Your task to perform on an android device: choose inbox layout in the gmail app Image 0: 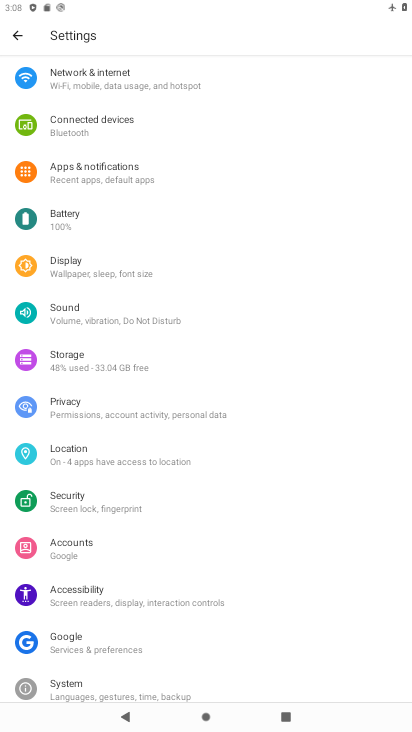
Step 0: press home button
Your task to perform on an android device: choose inbox layout in the gmail app Image 1: 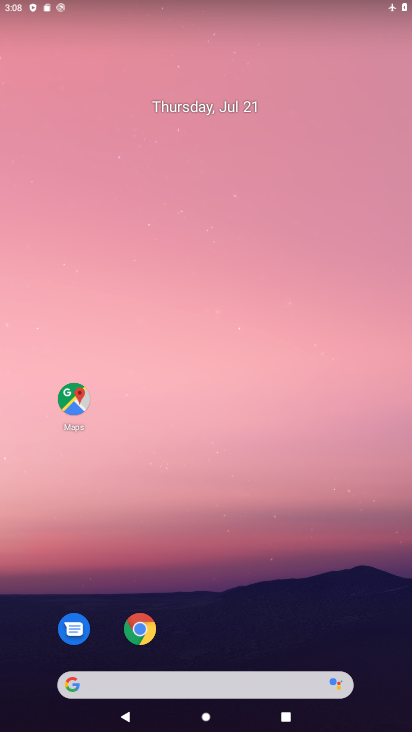
Step 1: drag from (299, 562) to (297, 103)
Your task to perform on an android device: choose inbox layout in the gmail app Image 2: 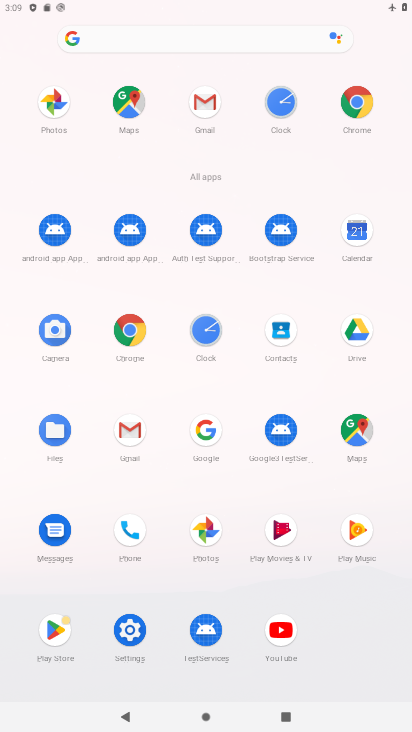
Step 2: click (133, 426)
Your task to perform on an android device: choose inbox layout in the gmail app Image 3: 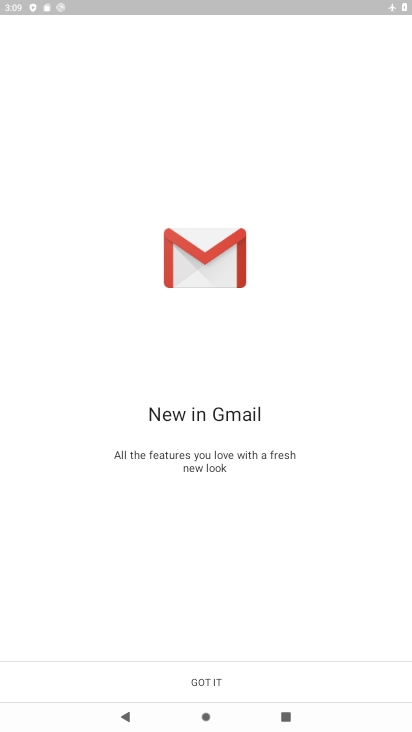
Step 3: click (227, 677)
Your task to perform on an android device: choose inbox layout in the gmail app Image 4: 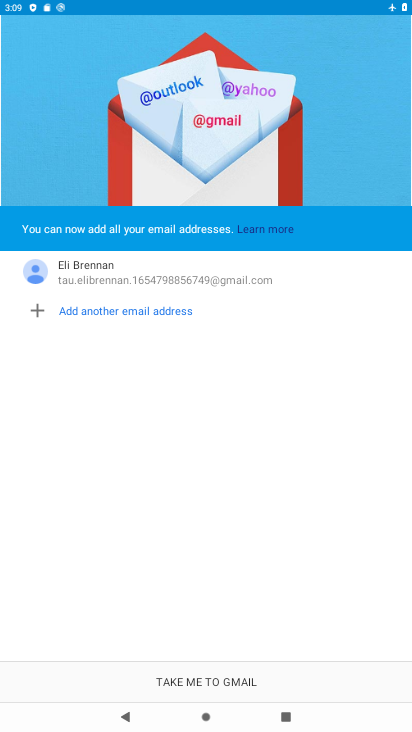
Step 4: click (217, 667)
Your task to perform on an android device: choose inbox layout in the gmail app Image 5: 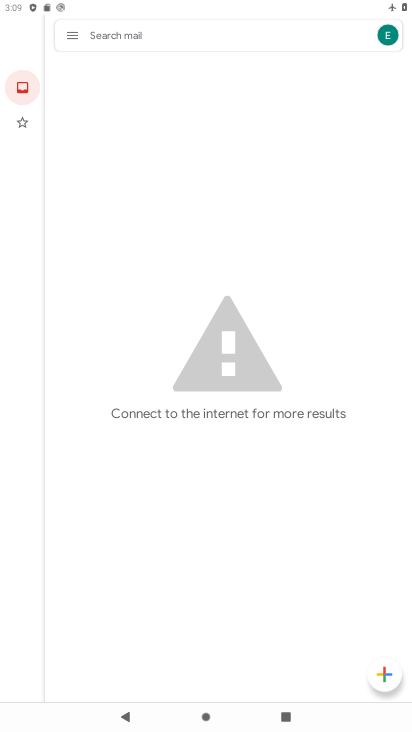
Step 5: click (68, 35)
Your task to perform on an android device: choose inbox layout in the gmail app Image 6: 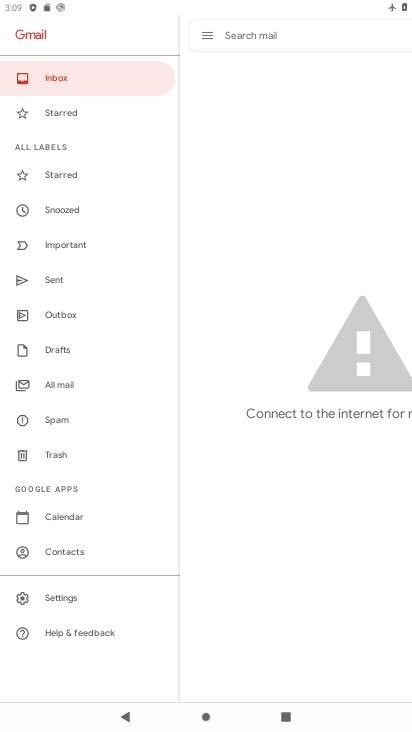
Step 6: click (68, 593)
Your task to perform on an android device: choose inbox layout in the gmail app Image 7: 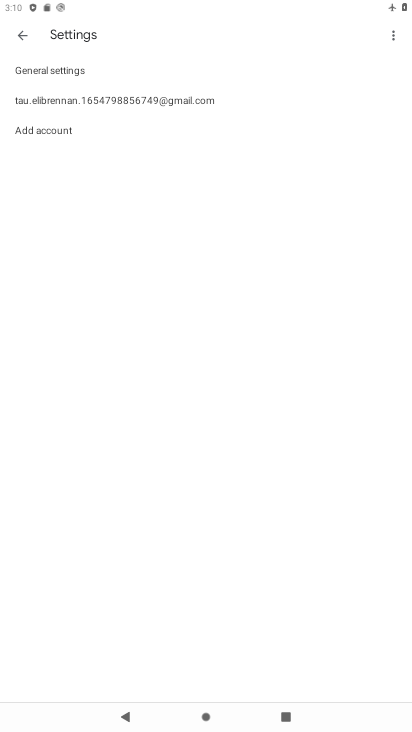
Step 7: click (180, 103)
Your task to perform on an android device: choose inbox layout in the gmail app Image 8: 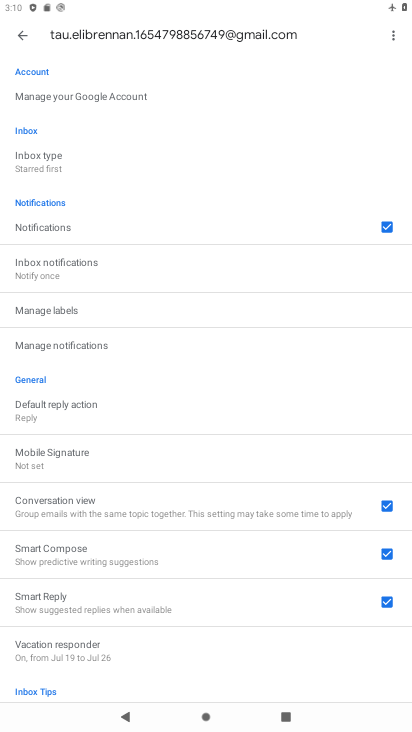
Step 8: click (69, 152)
Your task to perform on an android device: choose inbox layout in the gmail app Image 9: 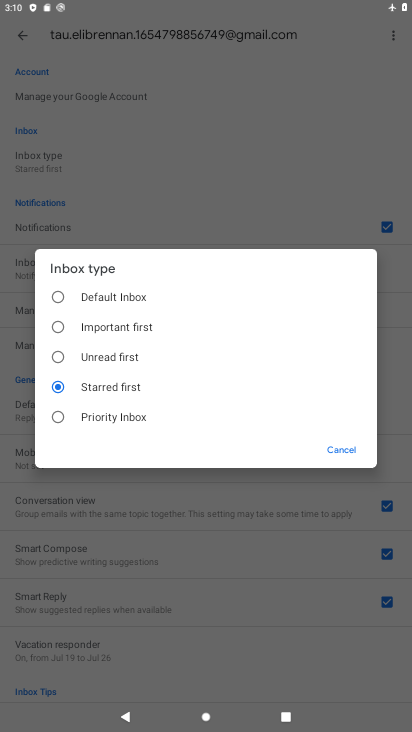
Step 9: click (114, 330)
Your task to perform on an android device: choose inbox layout in the gmail app Image 10: 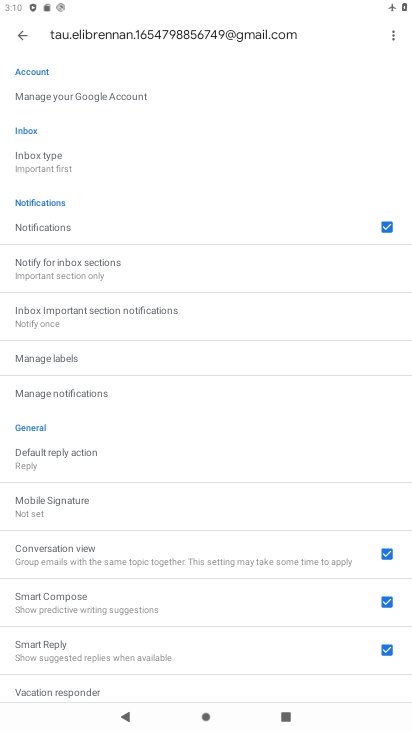
Step 10: task complete